Your task to perform on an android device: Open Youtube and go to "Your channel" Image 0: 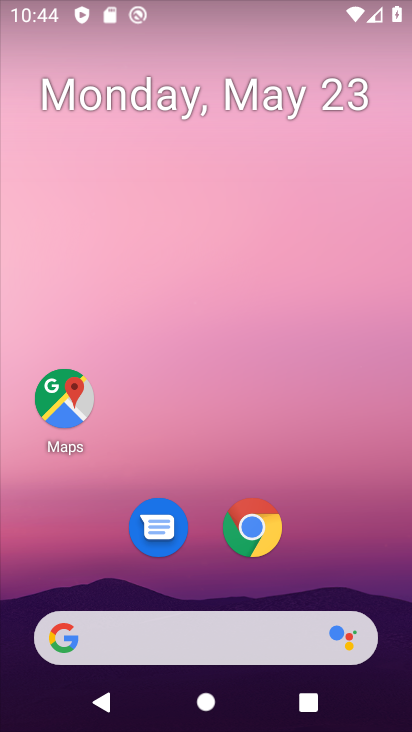
Step 0: drag from (60, 591) to (197, 108)
Your task to perform on an android device: Open Youtube and go to "Your channel" Image 1: 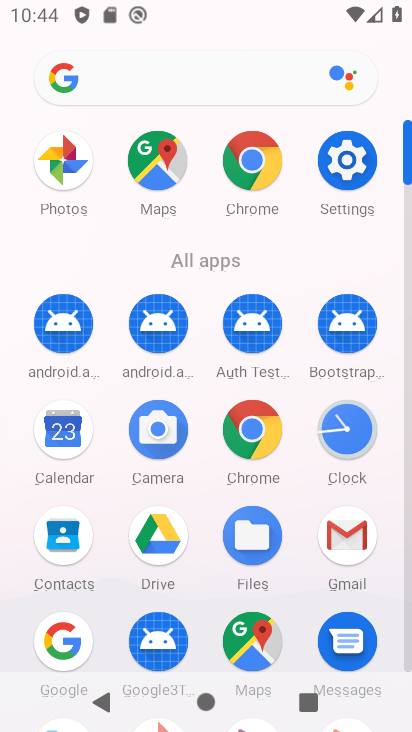
Step 1: drag from (165, 564) to (236, 267)
Your task to perform on an android device: Open Youtube and go to "Your channel" Image 2: 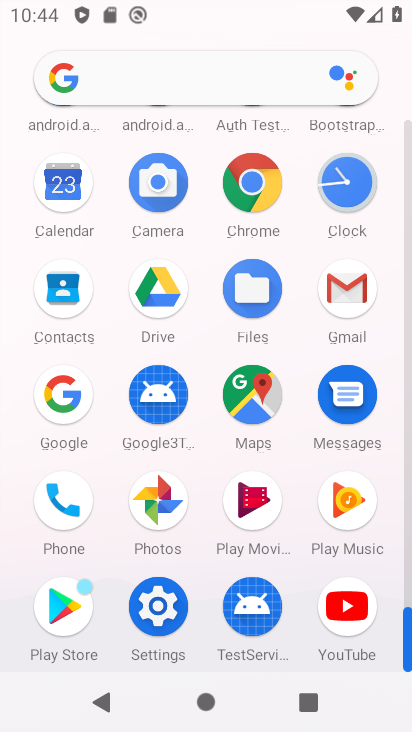
Step 2: click (355, 615)
Your task to perform on an android device: Open Youtube and go to "Your channel" Image 3: 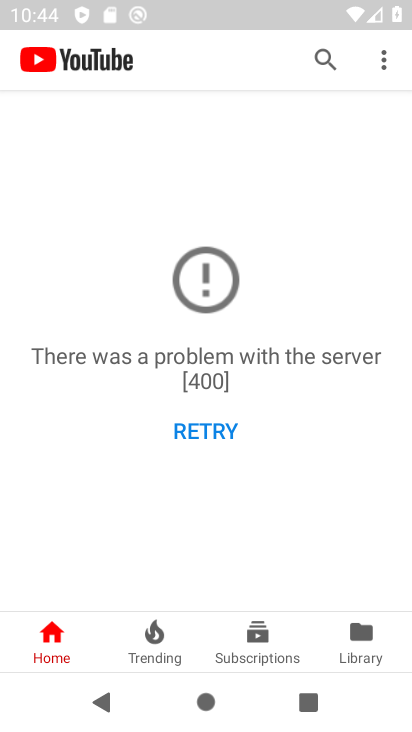
Step 3: click (349, 607)
Your task to perform on an android device: Open Youtube and go to "Your channel" Image 4: 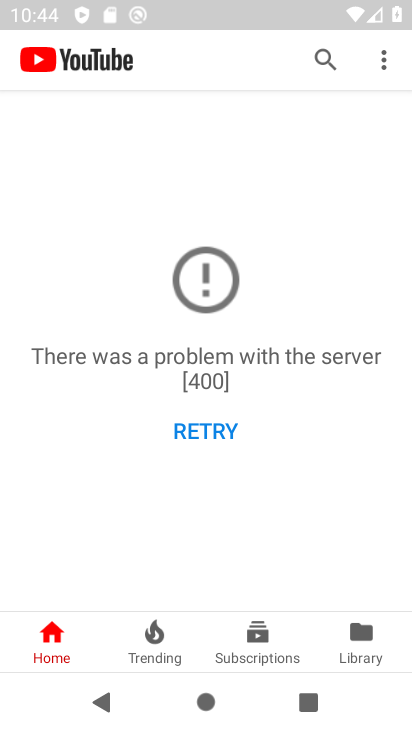
Step 4: click (370, 648)
Your task to perform on an android device: Open Youtube and go to "Your channel" Image 5: 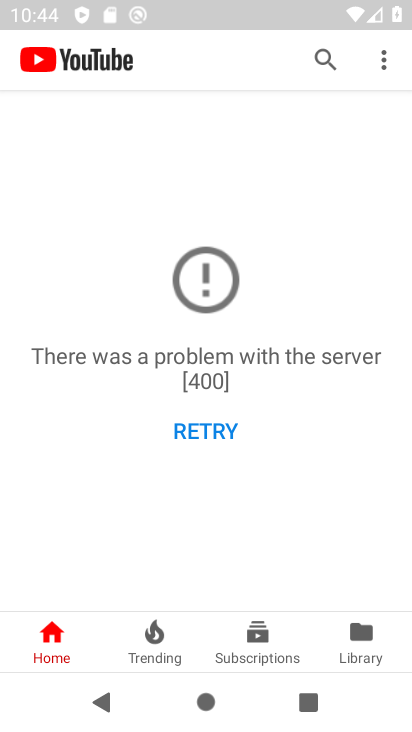
Step 5: click (363, 648)
Your task to perform on an android device: Open Youtube and go to "Your channel" Image 6: 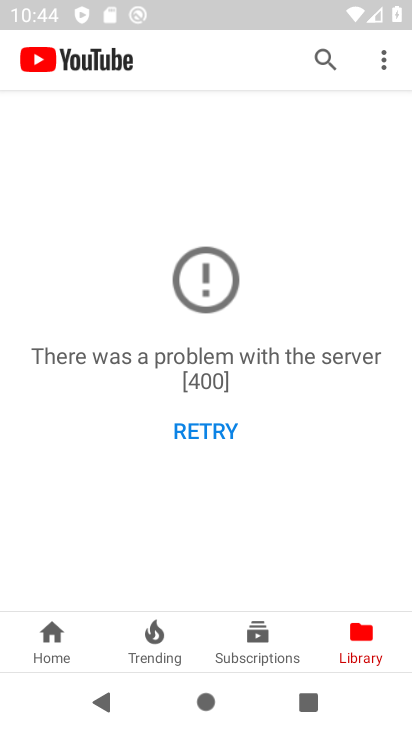
Step 6: task complete